Your task to perform on an android device: What is the news today? Image 0: 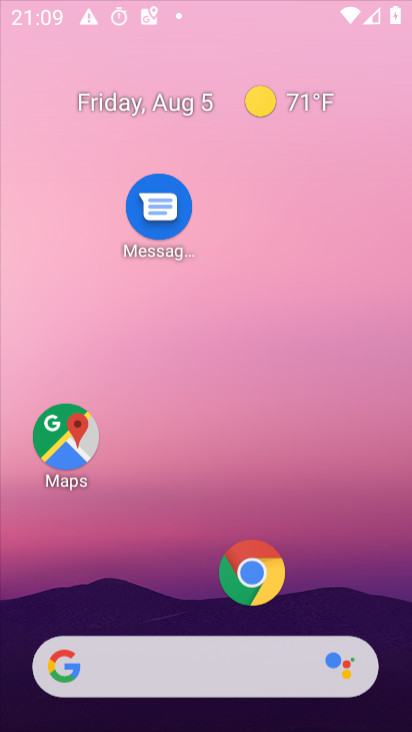
Step 0: press home button
Your task to perform on an android device: What is the news today? Image 1: 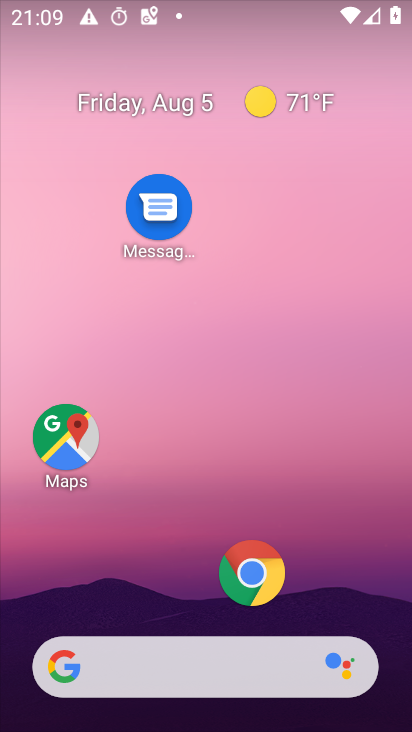
Step 1: task complete